Your task to perform on an android device: toggle wifi Image 0: 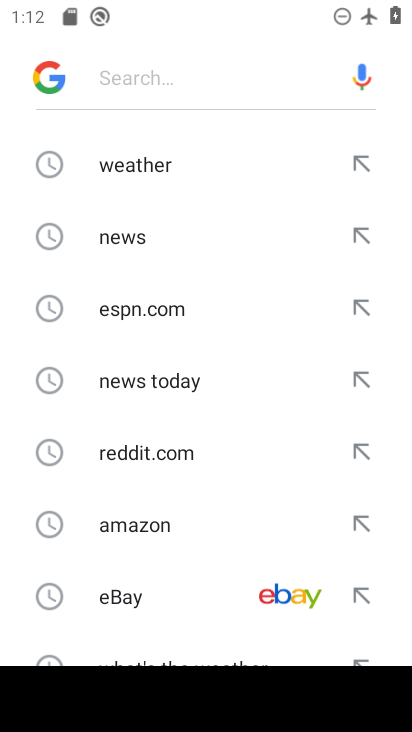
Step 0: press home button
Your task to perform on an android device: toggle wifi Image 1: 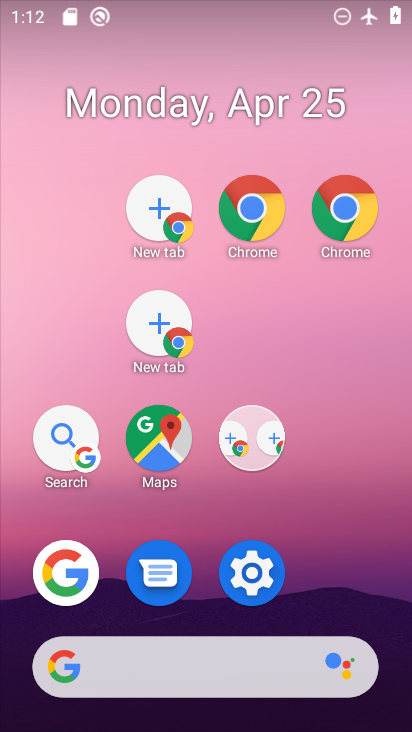
Step 1: drag from (218, 566) to (106, 23)
Your task to perform on an android device: toggle wifi Image 2: 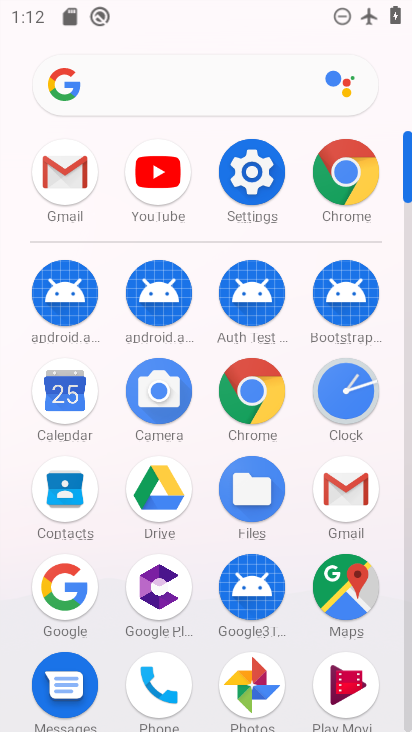
Step 2: click (258, 178)
Your task to perform on an android device: toggle wifi Image 3: 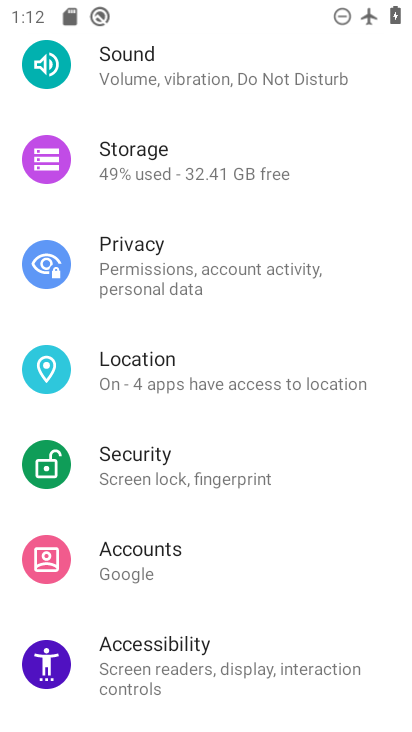
Step 3: drag from (246, 570) to (266, 652)
Your task to perform on an android device: toggle wifi Image 4: 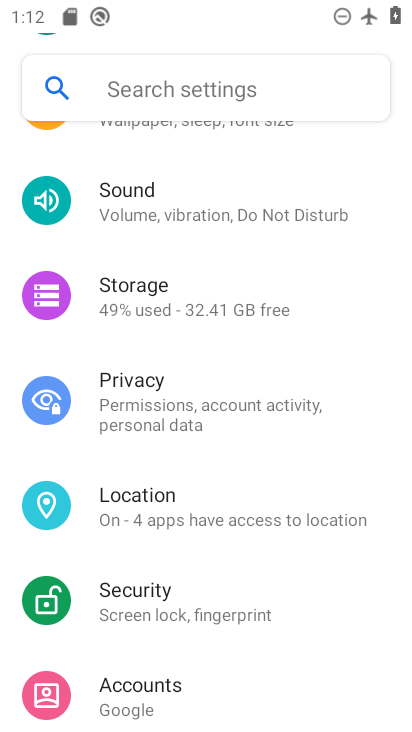
Step 4: drag from (180, 353) to (215, 507)
Your task to perform on an android device: toggle wifi Image 5: 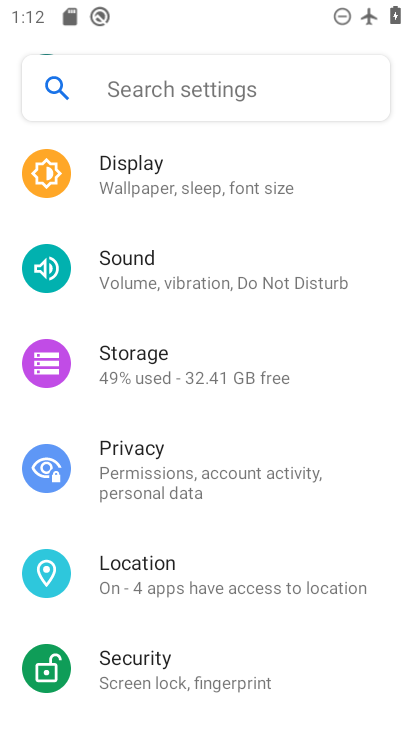
Step 5: drag from (183, 238) to (284, 534)
Your task to perform on an android device: toggle wifi Image 6: 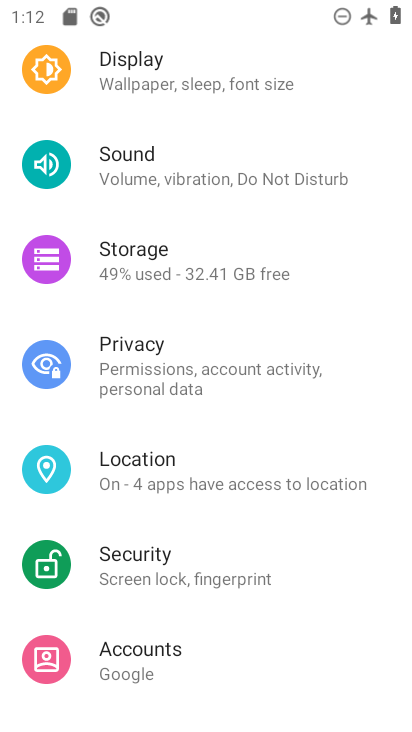
Step 6: drag from (222, 411) to (216, 368)
Your task to perform on an android device: toggle wifi Image 7: 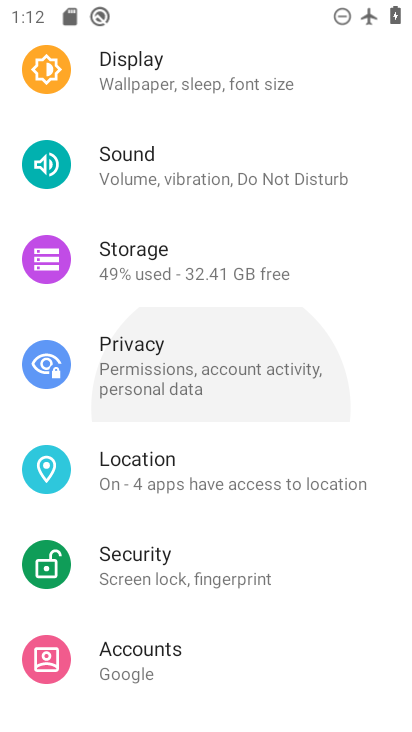
Step 7: click (233, 424)
Your task to perform on an android device: toggle wifi Image 8: 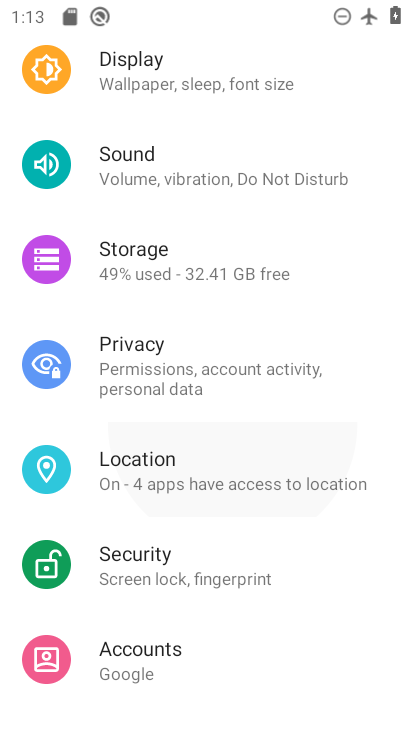
Step 8: drag from (249, 565) to (230, 467)
Your task to perform on an android device: toggle wifi Image 9: 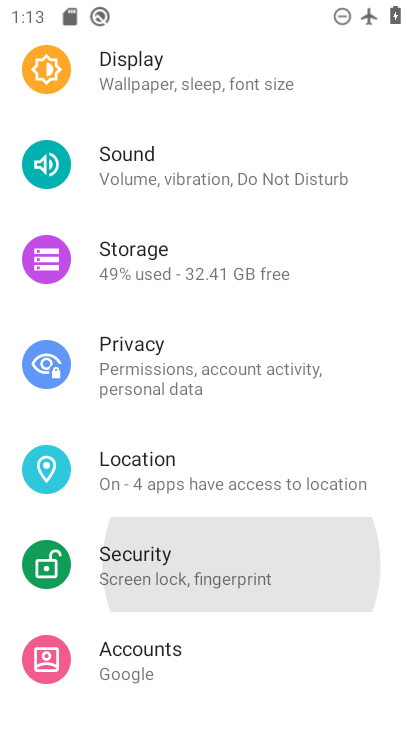
Step 9: drag from (245, 584) to (277, 616)
Your task to perform on an android device: toggle wifi Image 10: 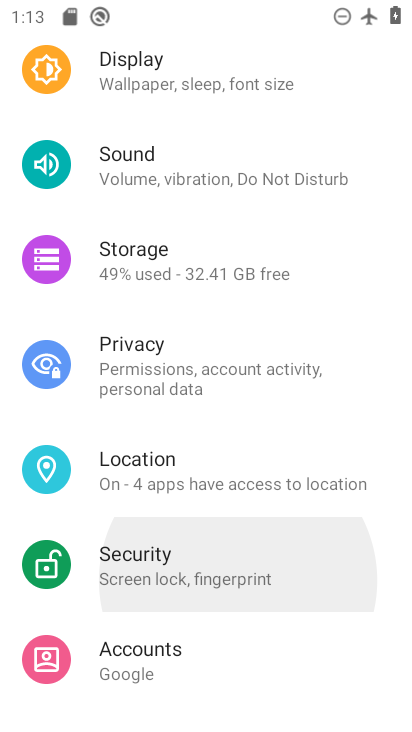
Step 10: drag from (190, 528) to (199, 483)
Your task to perform on an android device: toggle wifi Image 11: 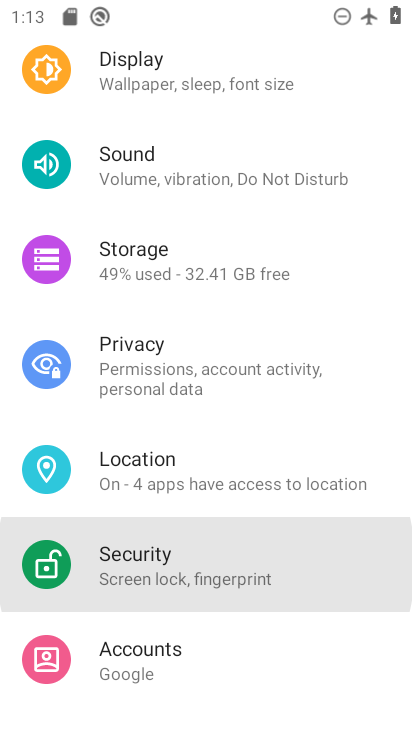
Step 11: drag from (186, 86) to (278, 643)
Your task to perform on an android device: toggle wifi Image 12: 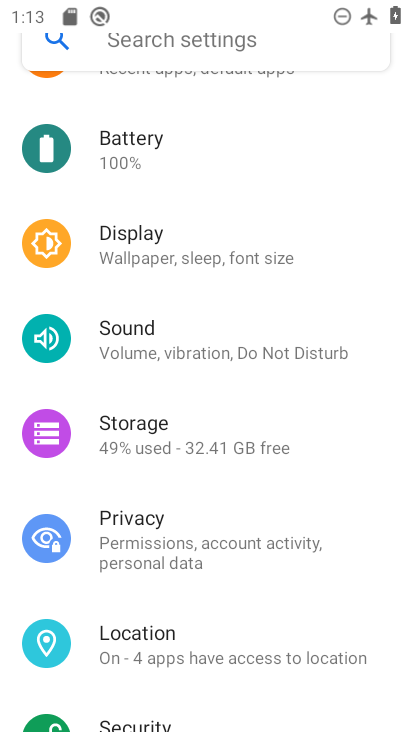
Step 12: drag from (159, 167) to (240, 597)
Your task to perform on an android device: toggle wifi Image 13: 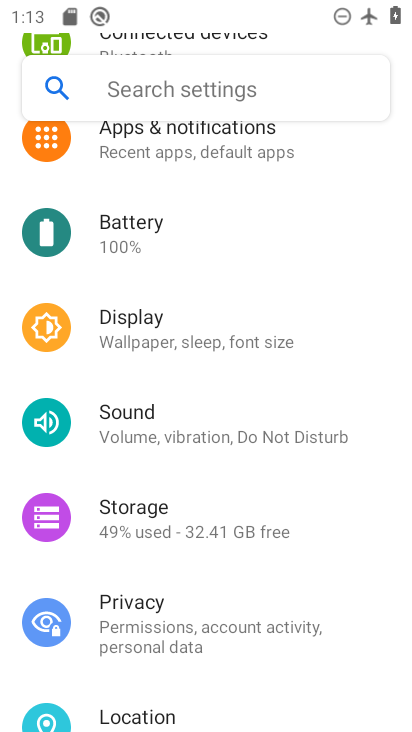
Step 13: drag from (104, 214) to (240, 655)
Your task to perform on an android device: toggle wifi Image 14: 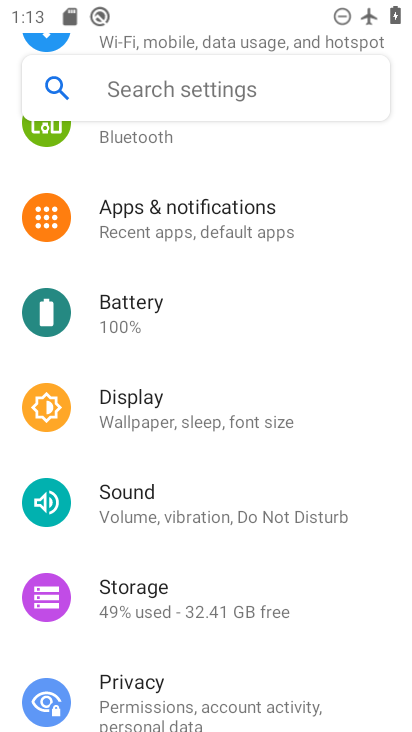
Step 14: drag from (196, 342) to (235, 579)
Your task to perform on an android device: toggle wifi Image 15: 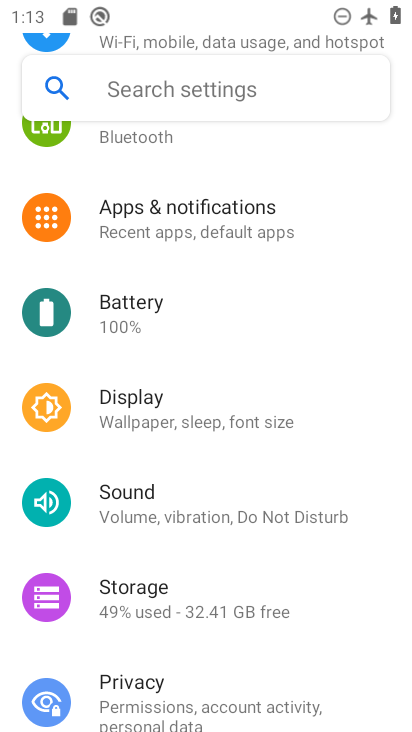
Step 15: drag from (151, 176) to (240, 538)
Your task to perform on an android device: toggle wifi Image 16: 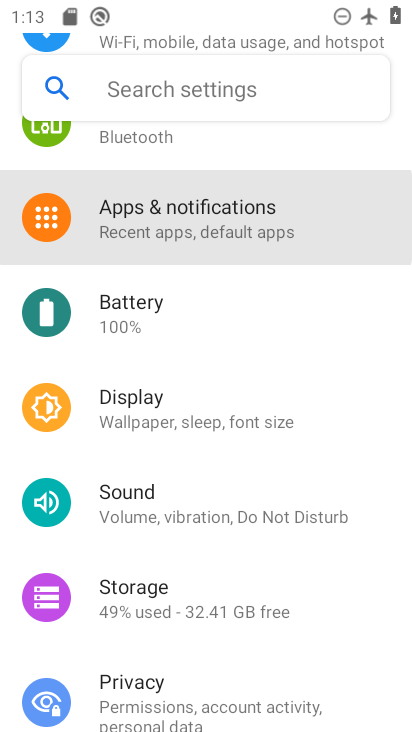
Step 16: drag from (219, 479) to (277, 572)
Your task to perform on an android device: toggle wifi Image 17: 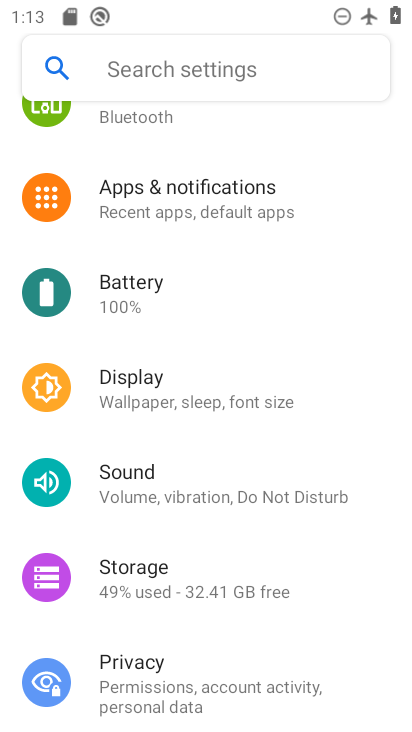
Step 17: drag from (165, 192) to (235, 438)
Your task to perform on an android device: toggle wifi Image 18: 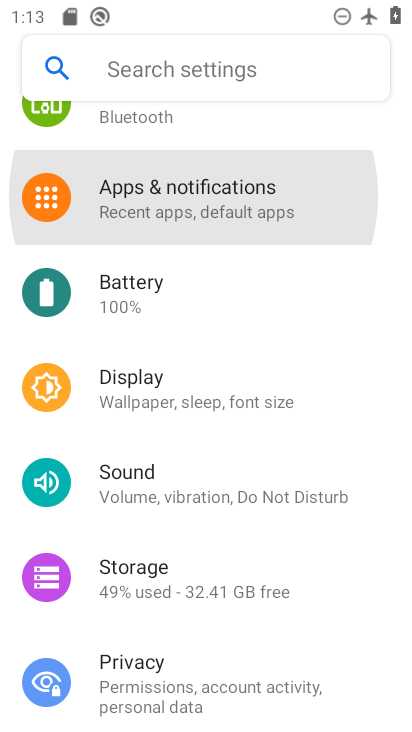
Step 18: drag from (184, 158) to (254, 600)
Your task to perform on an android device: toggle wifi Image 19: 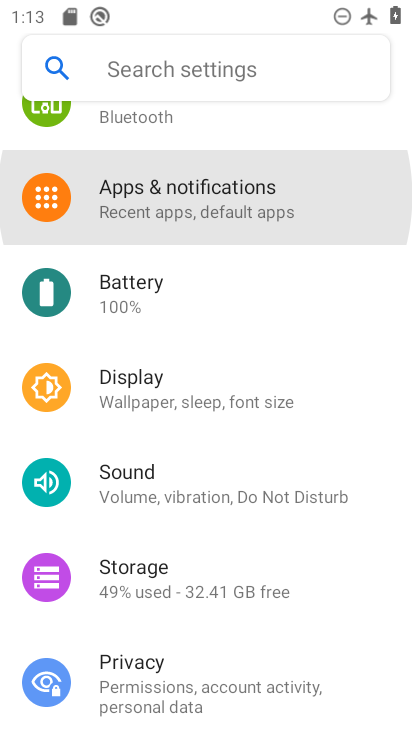
Step 19: drag from (230, 600) to (244, 680)
Your task to perform on an android device: toggle wifi Image 20: 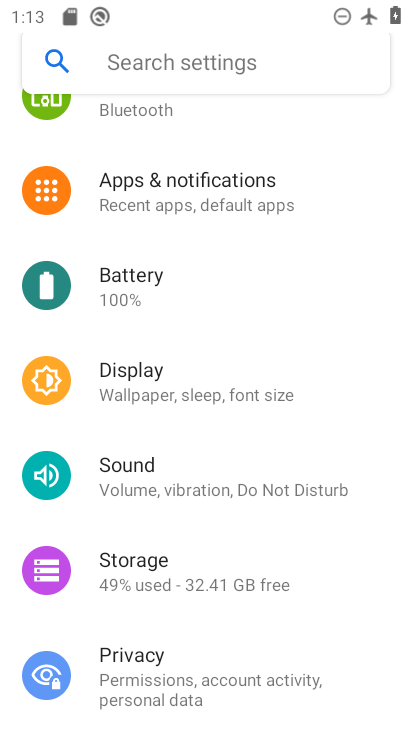
Step 20: drag from (155, 230) to (211, 438)
Your task to perform on an android device: toggle wifi Image 21: 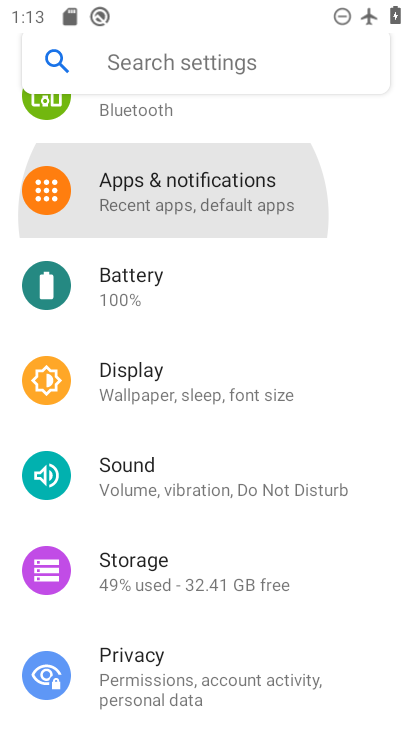
Step 21: click (224, 448)
Your task to perform on an android device: toggle wifi Image 22: 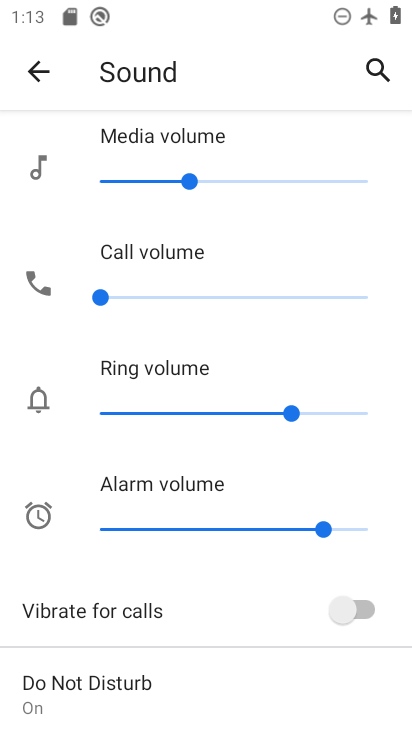
Step 22: click (39, 65)
Your task to perform on an android device: toggle wifi Image 23: 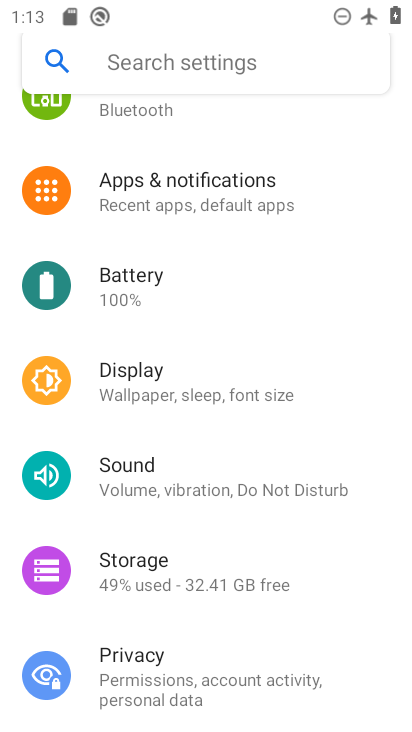
Step 23: drag from (129, 165) to (219, 581)
Your task to perform on an android device: toggle wifi Image 24: 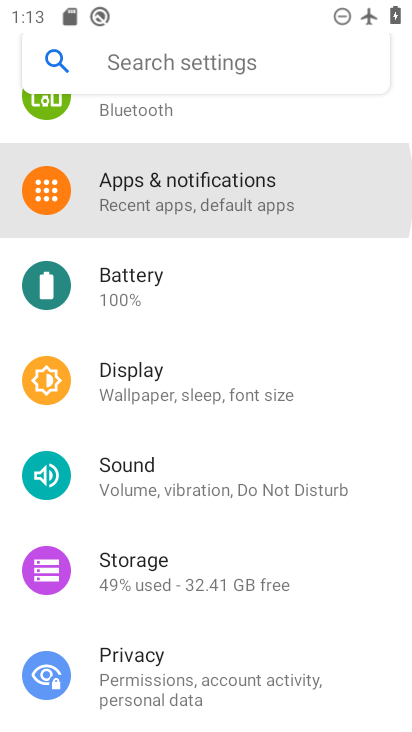
Step 24: drag from (174, 389) to (232, 608)
Your task to perform on an android device: toggle wifi Image 25: 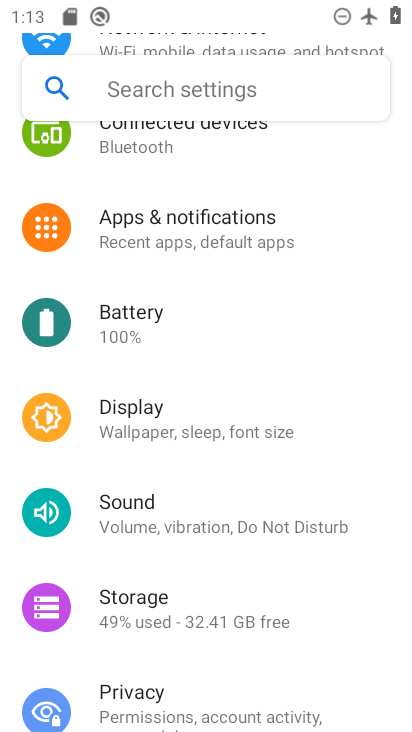
Step 25: drag from (182, 419) to (170, 624)
Your task to perform on an android device: toggle wifi Image 26: 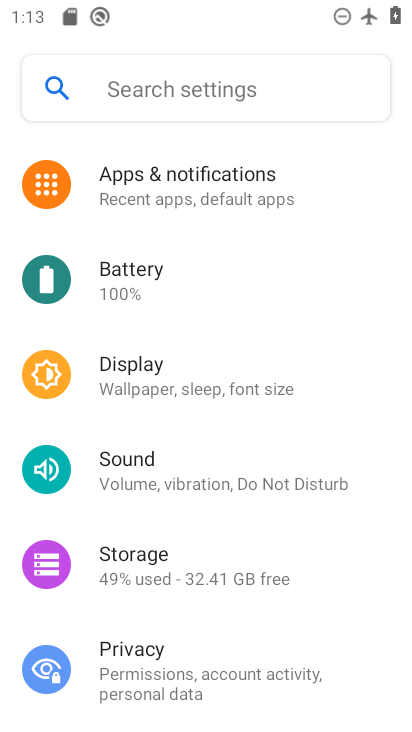
Step 26: drag from (156, 213) to (186, 604)
Your task to perform on an android device: toggle wifi Image 27: 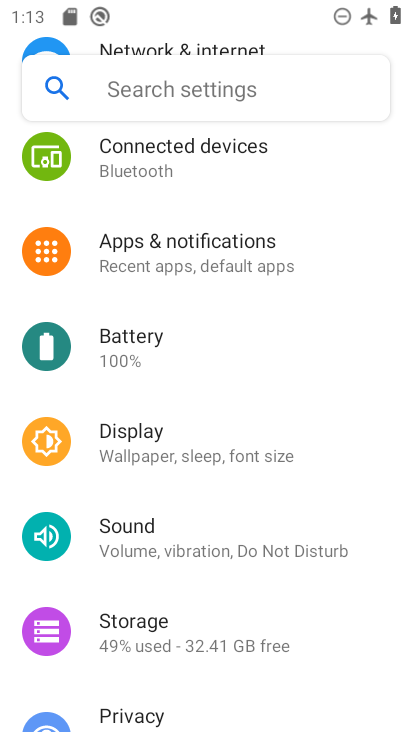
Step 27: drag from (143, 151) to (184, 650)
Your task to perform on an android device: toggle wifi Image 28: 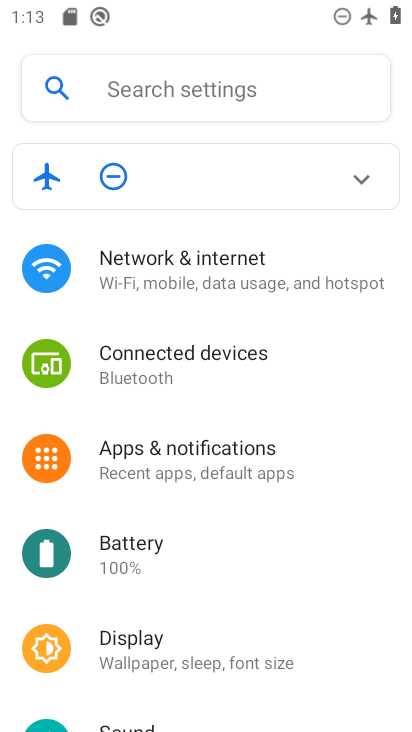
Step 28: click (158, 261)
Your task to perform on an android device: toggle wifi Image 29: 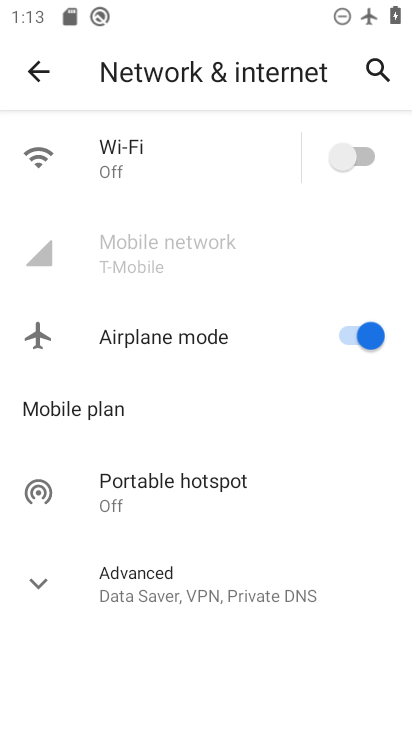
Step 29: click (341, 152)
Your task to perform on an android device: toggle wifi Image 30: 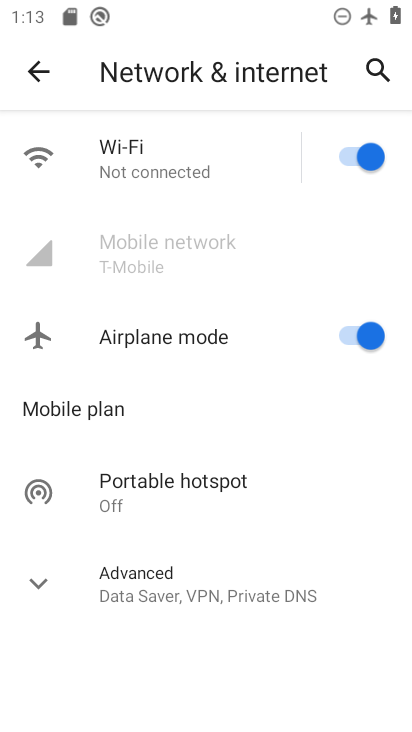
Step 30: task complete